Your task to perform on an android device: turn on showing notifications on the lock screen Image 0: 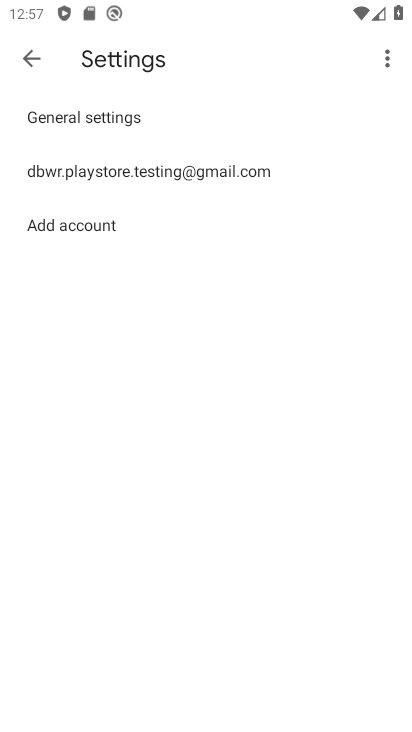
Step 0: press home button
Your task to perform on an android device: turn on showing notifications on the lock screen Image 1: 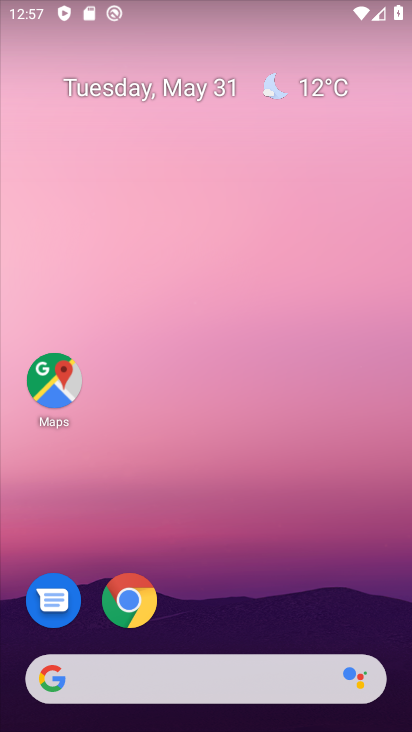
Step 1: drag from (269, 247) to (260, 9)
Your task to perform on an android device: turn on showing notifications on the lock screen Image 2: 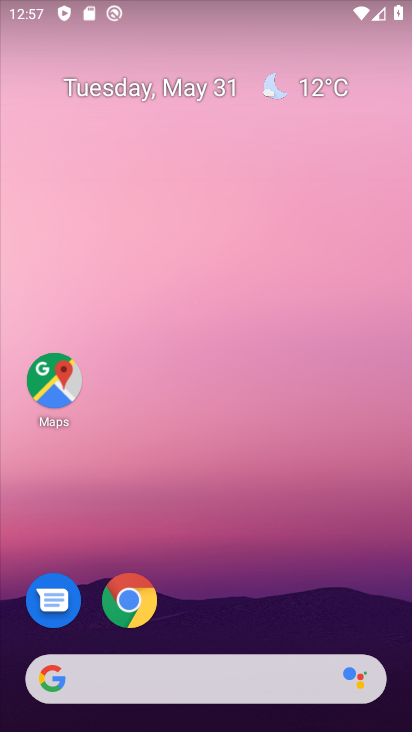
Step 2: drag from (244, 569) to (211, 4)
Your task to perform on an android device: turn on showing notifications on the lock screen Image 3: 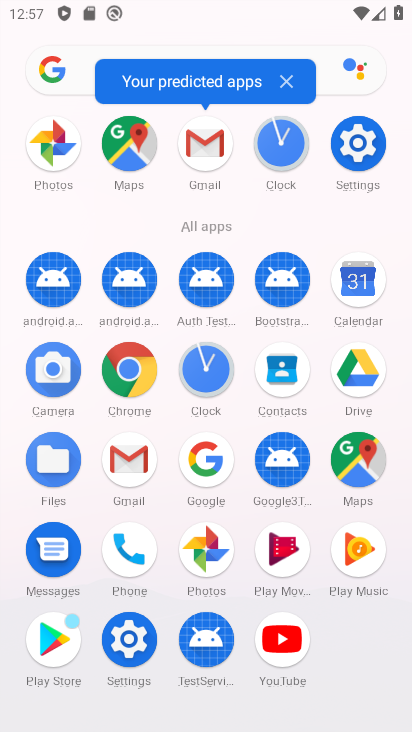
Step 3: click (130, 637)
Your task to perform on an android device: turn on showing notifications on the lock screen Image 4: 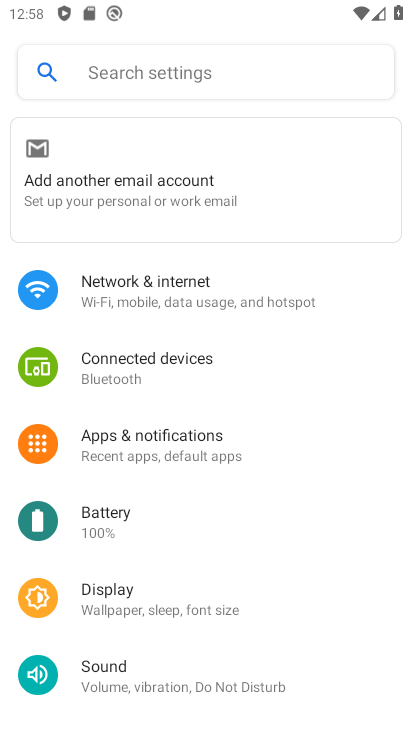
Step 4: click (182, 466)
Your task to perform on an android device: turn on showing notifications on the lock screen Image 5: 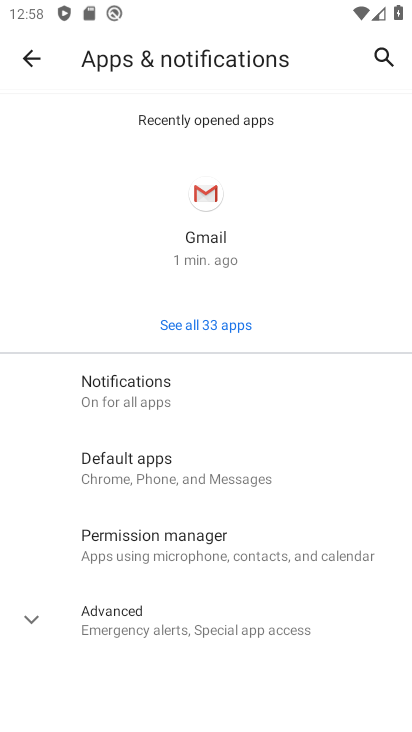
Step 5: click (267, 399)
Your task to perform on an android device: turn on showing notifications on the lock screen Image 6: 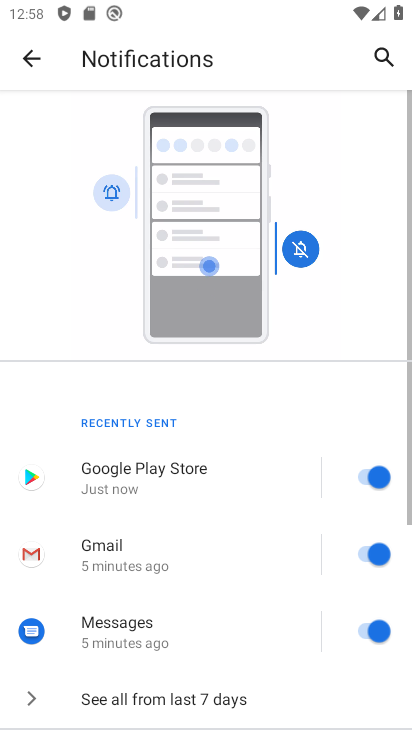
Step 6: drag from (246, 582) to (269, 138)
Your task to perform on an android device: turn on showing notifications on the lock screen Image 7: 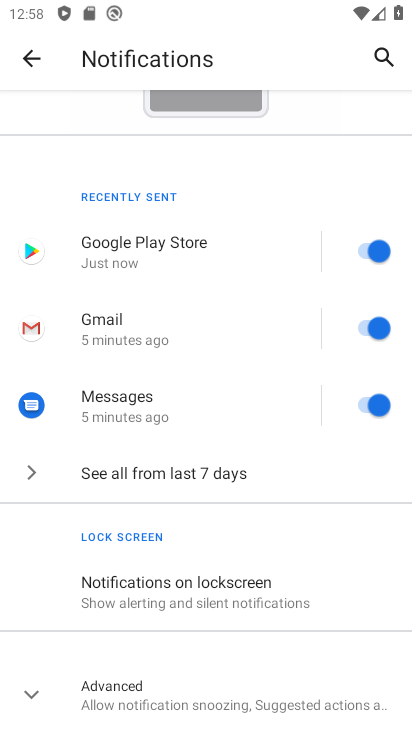
Step 7: click (198, 589)
Your task to perform on an android device: turn on showing notifications on the lock screen Image 8: 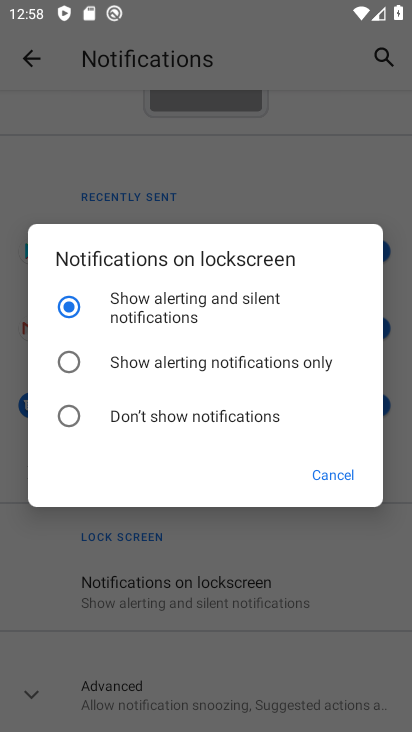
Step 8: task complete